Your task to perform on an android device: clear history in the chrome app Image 0: 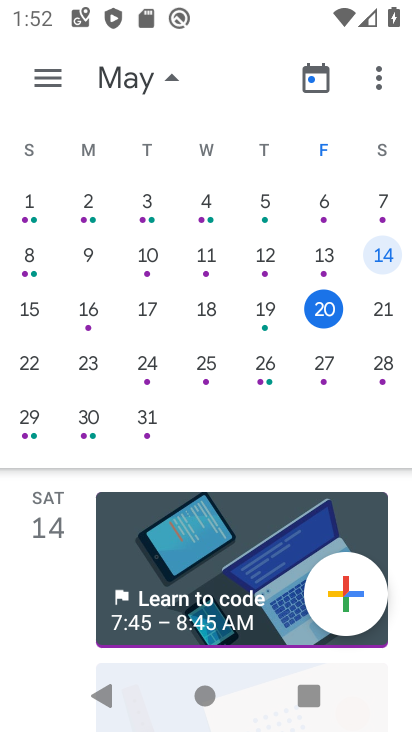
Step 0: press home button
Your task to perform on an android device: clear history in the chrome app Image 1: 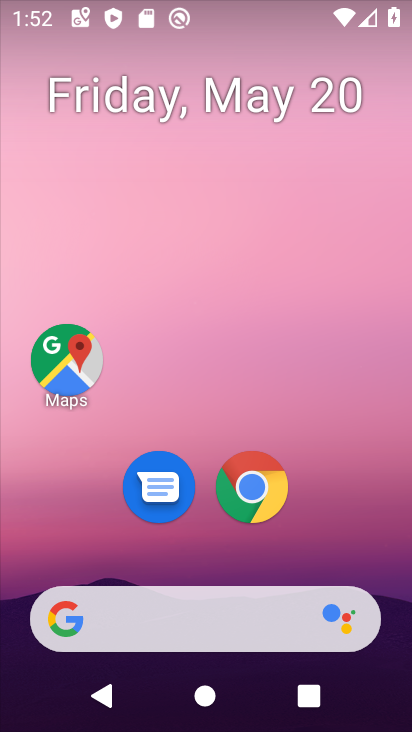
Step 1: drag from (358, 533) to (393, 49)
Your task to perform on an android device: clear history in the chrome app Image 2: 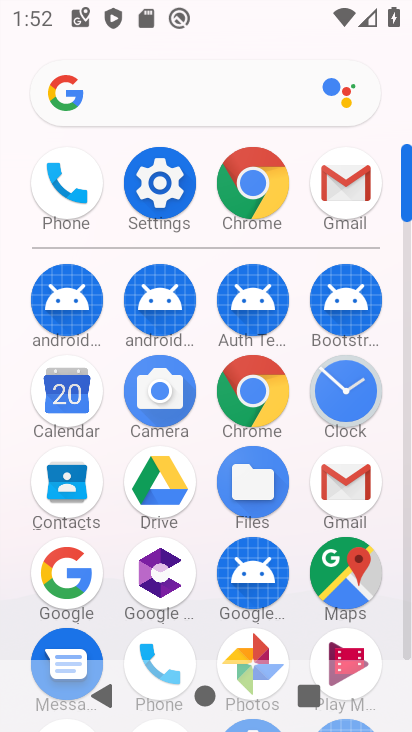
Step 2: click (269, 175)
Your task to perform on an android device: clear history in the chrome app Image 3: 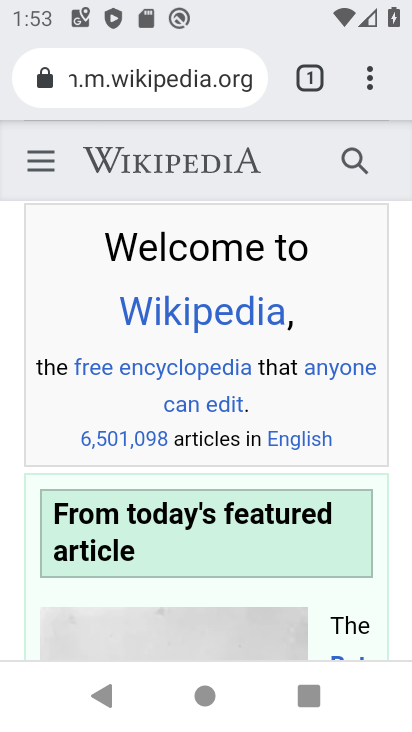
Step 3: drag from (365, 83) to (65, 443)
Your task to perform on an android device: clear history in the chrome app Image 4: 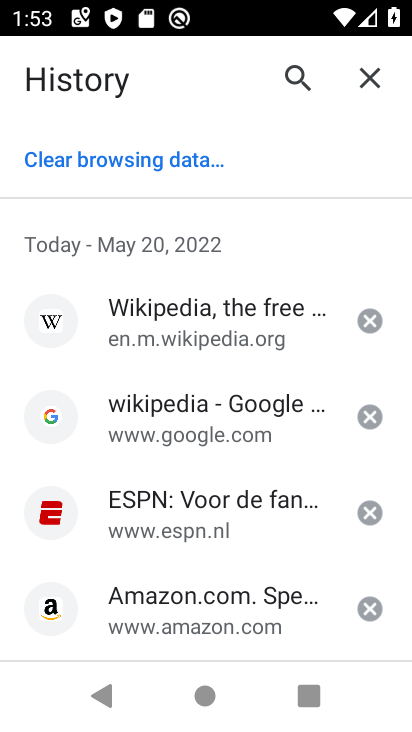
Step 4: click (107, 162)
Your task to perform on an android device: clear history in the chrome app Image 5: 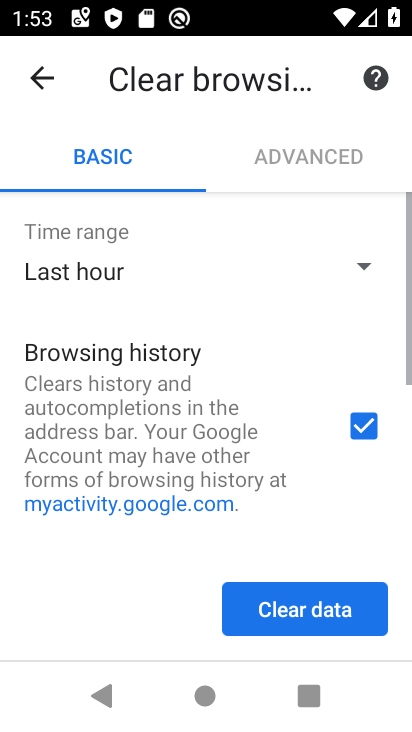
Step 5: click (313, 601)
Your task to perform on an android device: clear history in the chrome app Image 6: 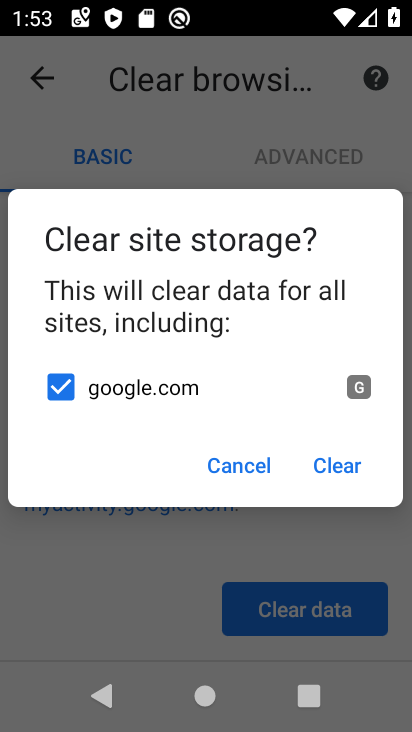
Step 6: click (342, 463)
Your task to perform on an android device: clear history in the chrome app Image 7: 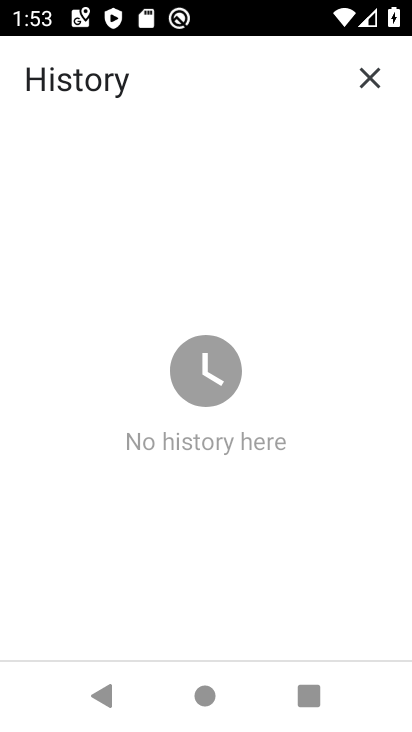
Step 7: task complete